Your task to perform on an android device: Play the last video I watched on Youtube Image 0: 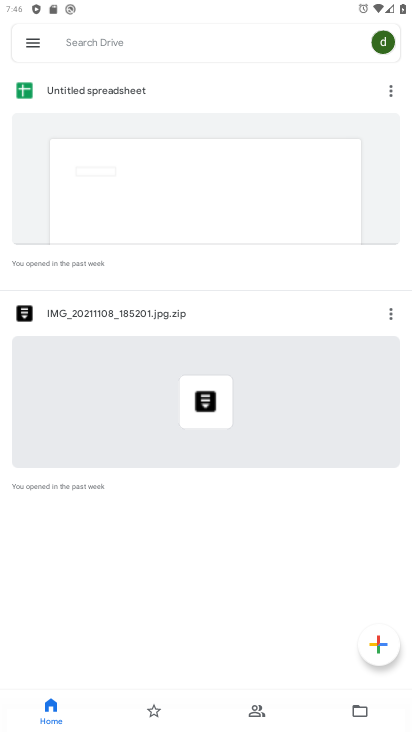
Step 0: press home button
Your task to perform on an android device: Play the last video I watched on Youtube Image 1: 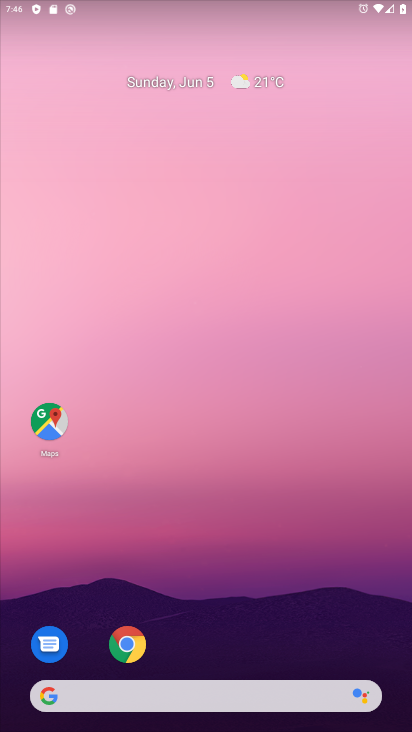
Step 1: drag from (29, 568) to (291, 170)
Your task to perform on an android device: Play the last video I watched on Youtube Image 2: 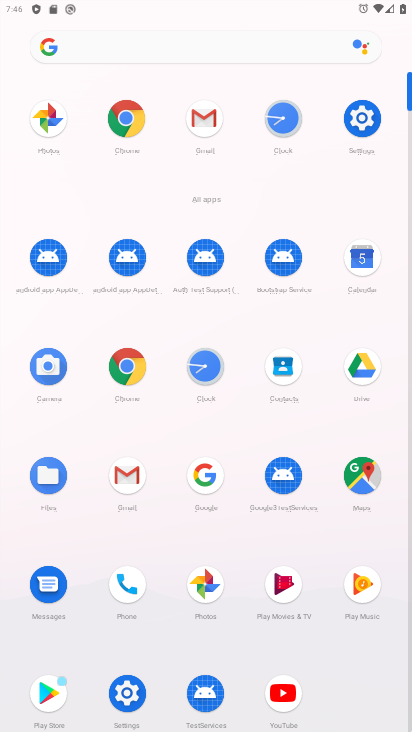
Step 2: click (275, 701)
Your task to perform on an android device: Play the last video I watched on Youtube Image 3: 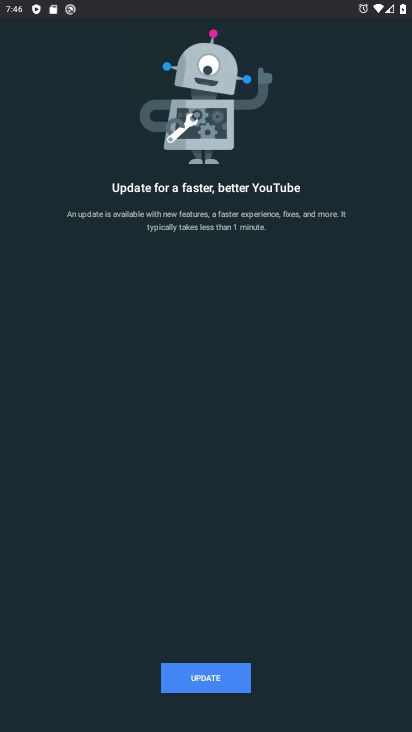
Step 3: click (197, 679)
Your task to perform on an android device: Play the last video I watched on Youtube Image 4: 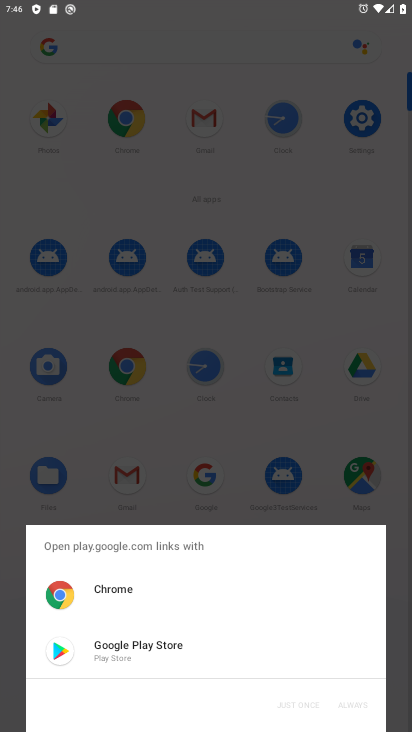
Step 4: task complete